Your task to perform on an android device: Open the clock app Image 0: 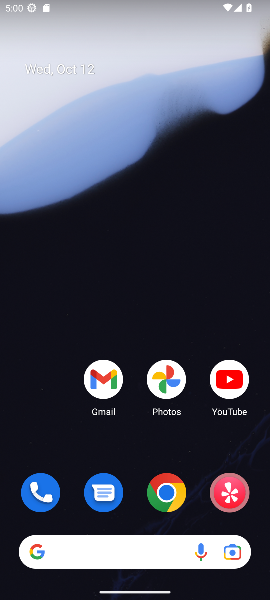
Step 0: drag from (141, 452) to (126, 51)
Your task to perform on an android device: Open the clock app Image 1: 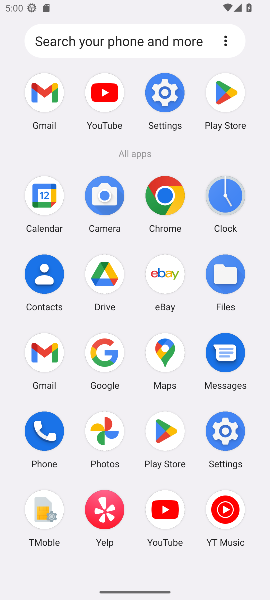
Step 1: click (231, 202)
Your task to perform on an android device: Open the clock app Image 2: 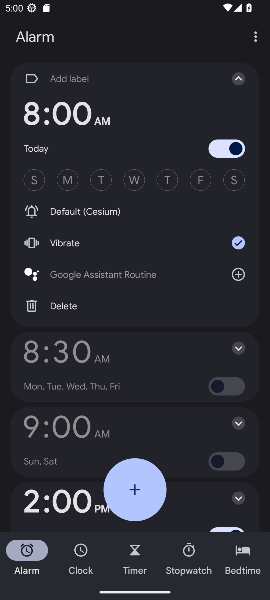
Step 2: task complete